Your task to perform on an android device: move a message to another label in the gmail app Image 0: 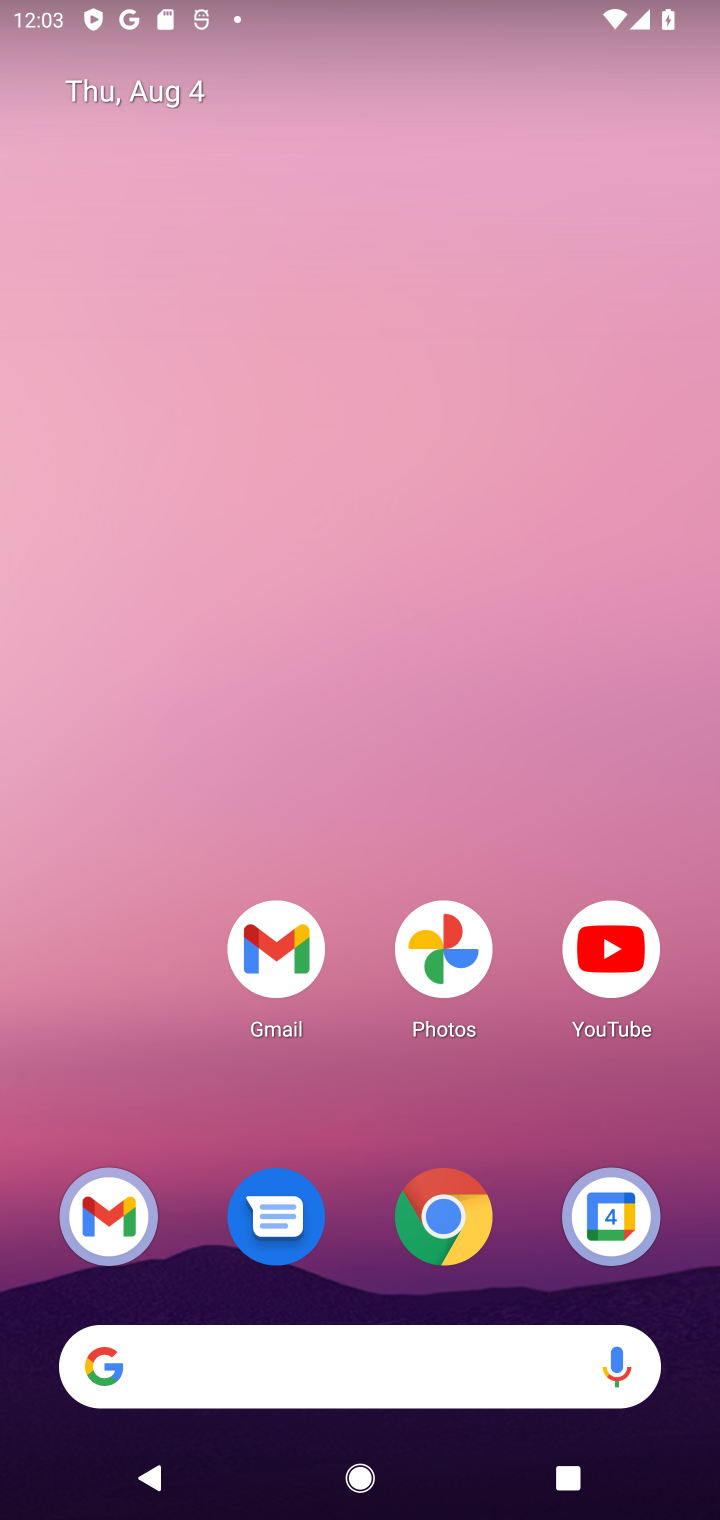
Step 0: drag from (411, 748) to (476, 112)
Your task to perform on an android device: move a message to another label in the gmail app Image 1: 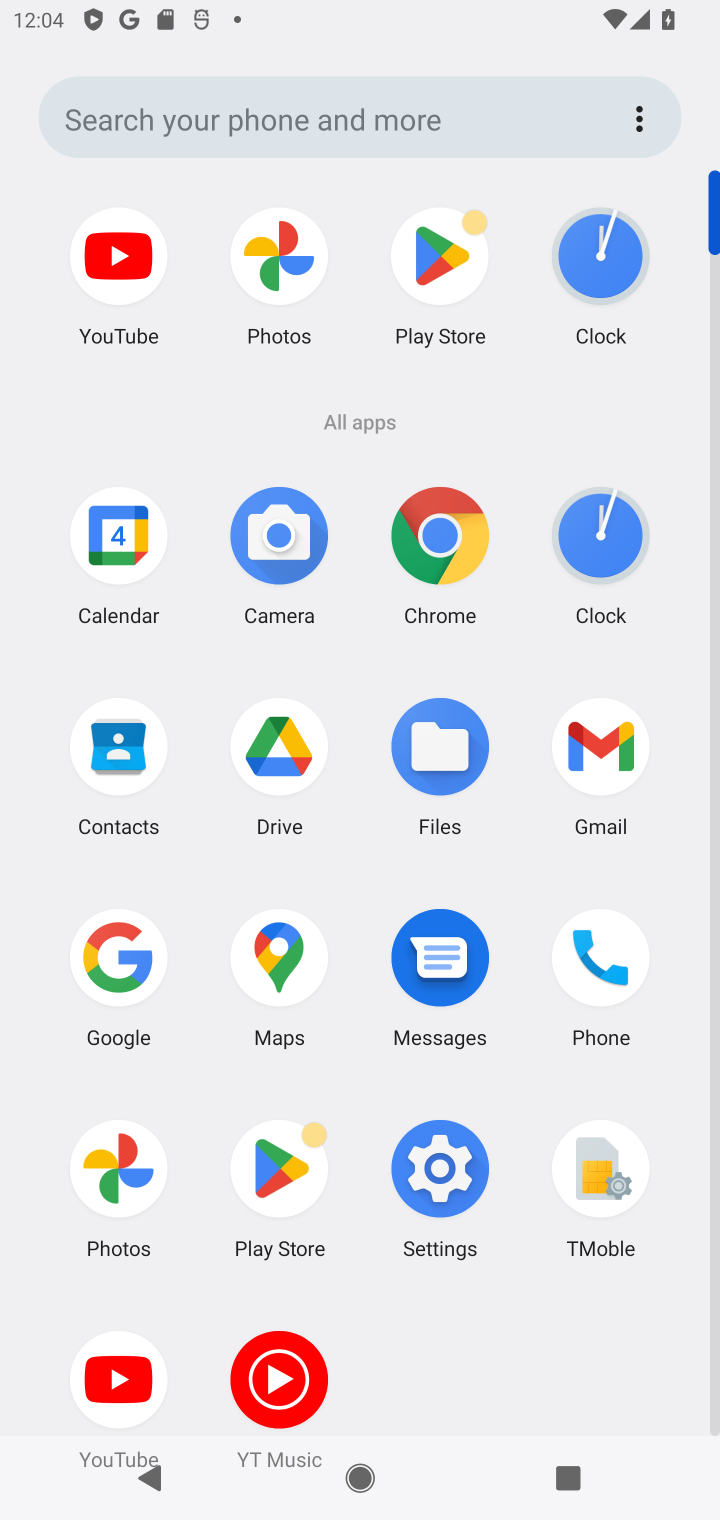
Step 1: click (590, 734)
Your task to perform on an android device: move a message to another label in the gmail app Image 2: 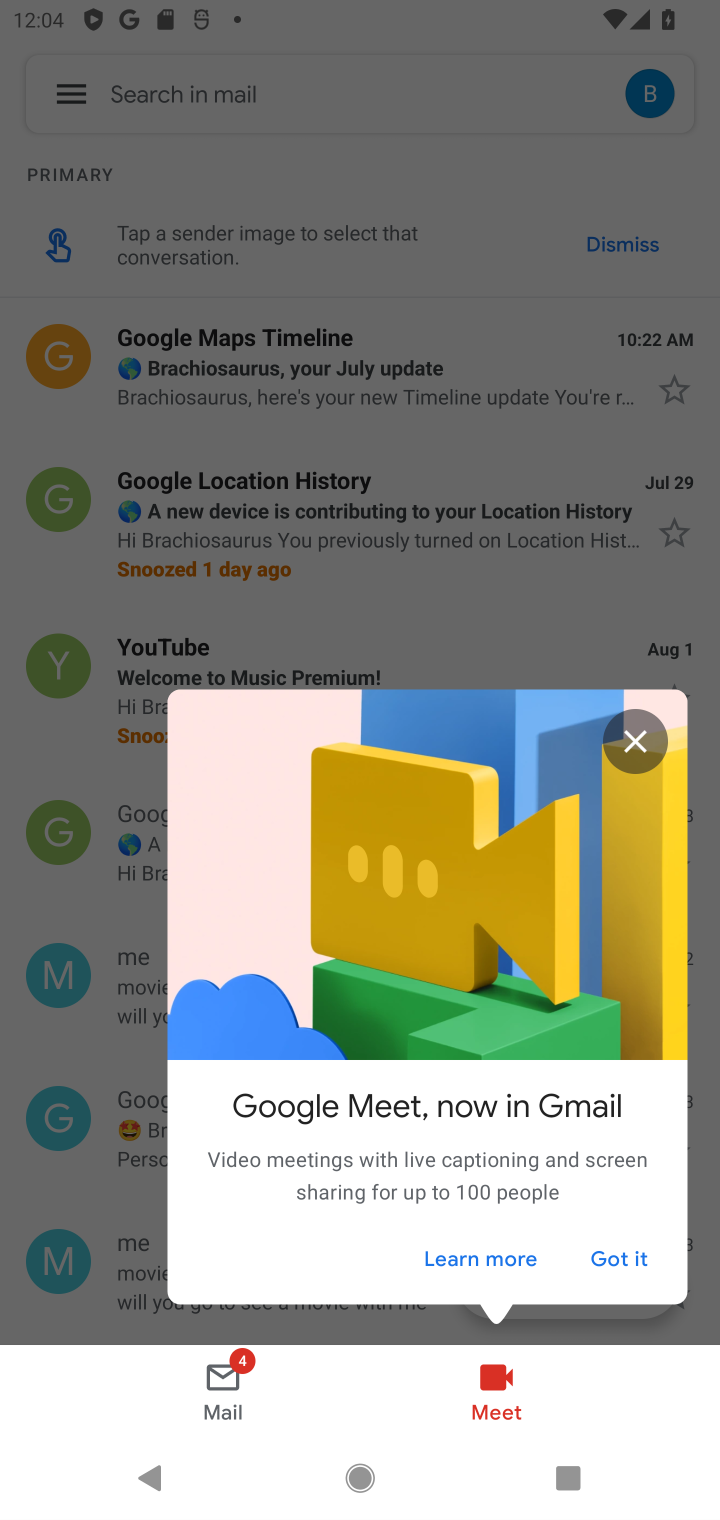
Step 2: click (612, 1278)
Your task to perform on an android device: move a message to another label in the gmail app Image 3: 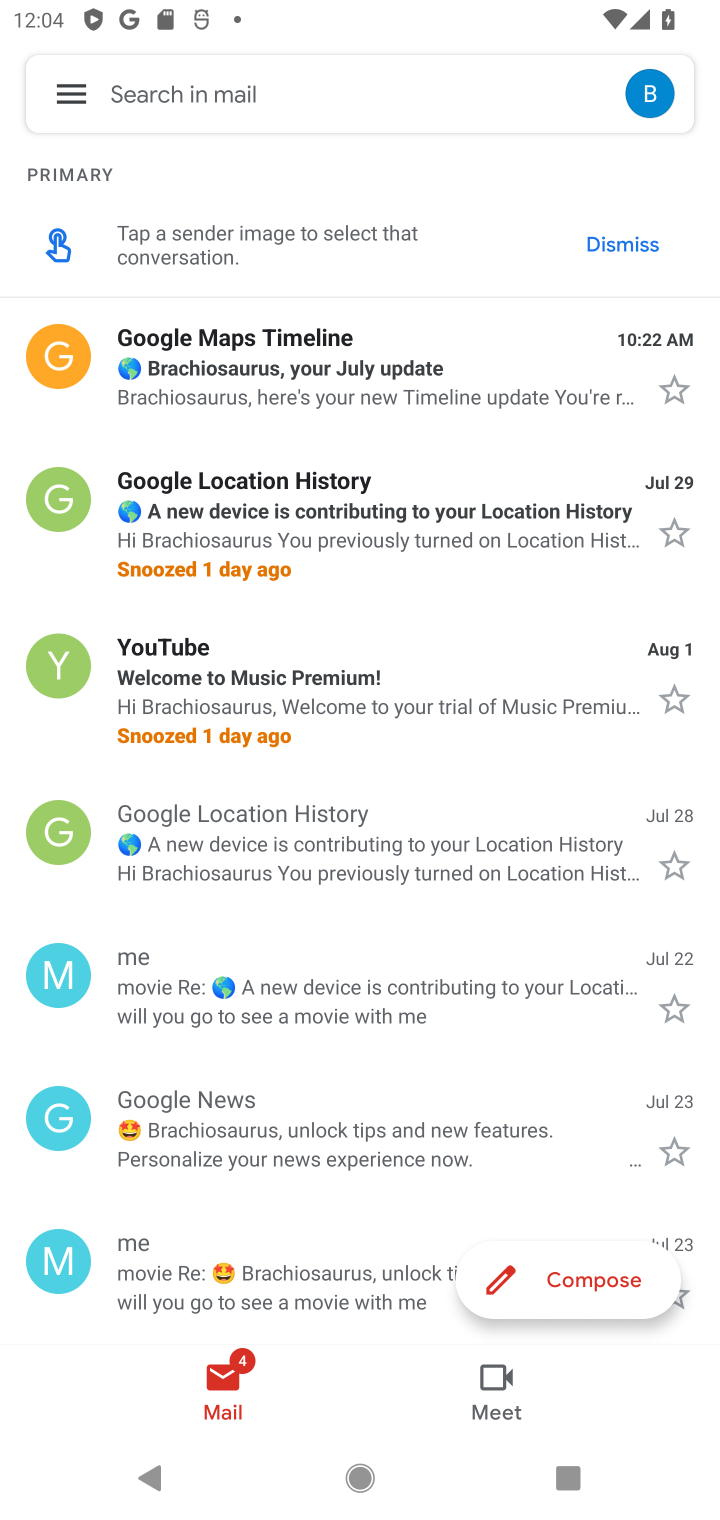
Step 3: task complete